Your task to perform on an android device: install app "Spotify" Image 0: 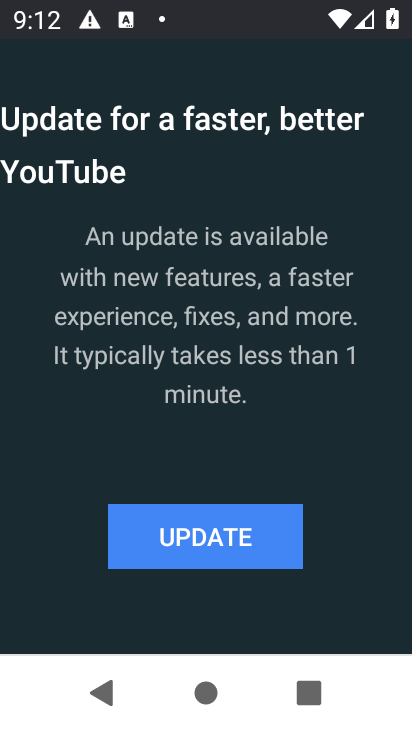
Step 0: press home button
Your task to perform on an android device: install app "Spotify" Image 1: 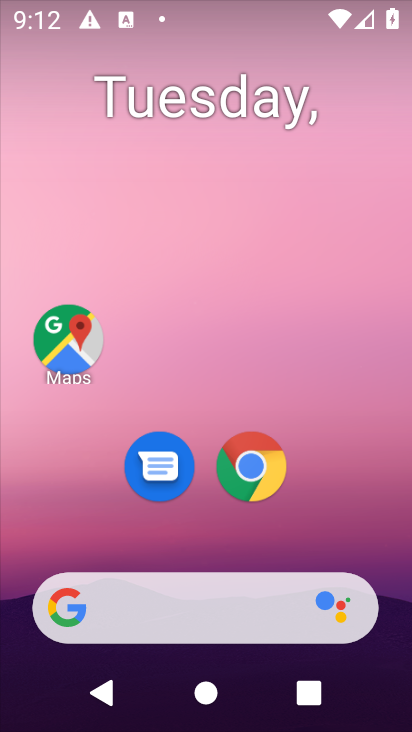
Step 1: drag from (202, 562) to (257, 31)
Your task to perform on an android device: install app "Spotify" Image 2: 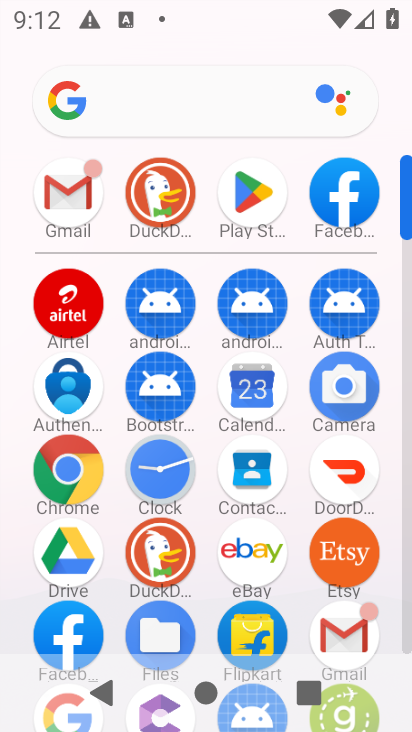
Step 2: click (263, 193)
Your task to perform on an android device: install app "Spotify" Image 3: 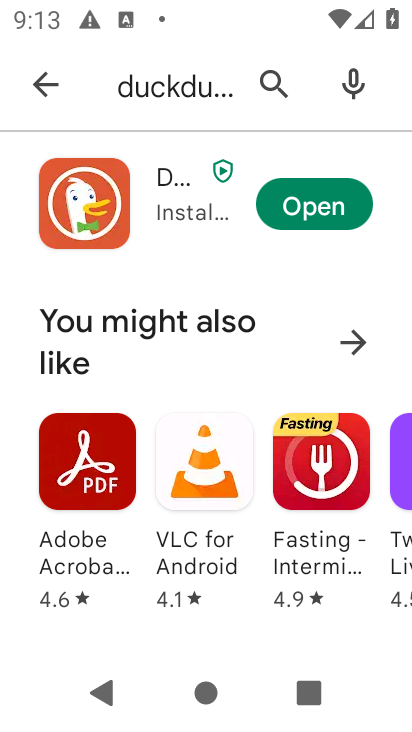
Step 3: click (270, 69)
Your task to perform on an android device: install app "Spotify" Image 4: 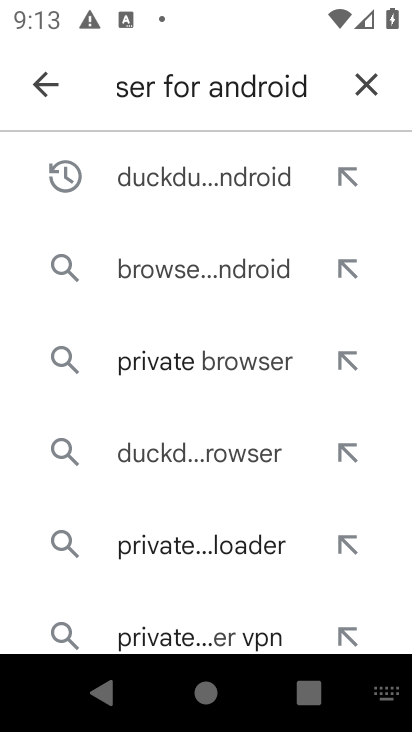
Step 4: click (349, 79)
Your task to perform on an android device: install app "Spotify" Image 5: 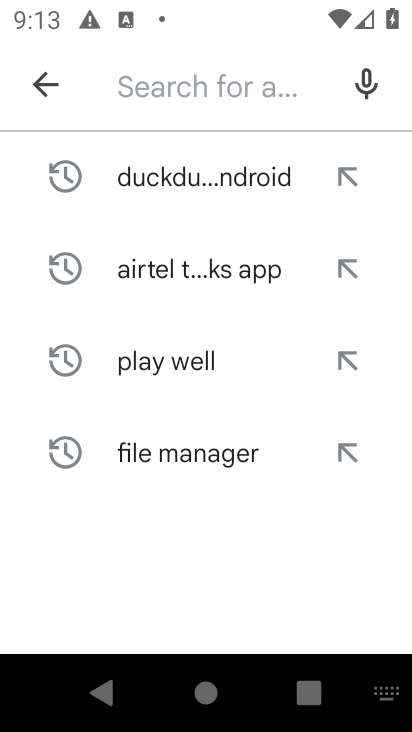
Step 5: type "spotify"
Your task to perform on an android device: install app "Spotify" Image 6: 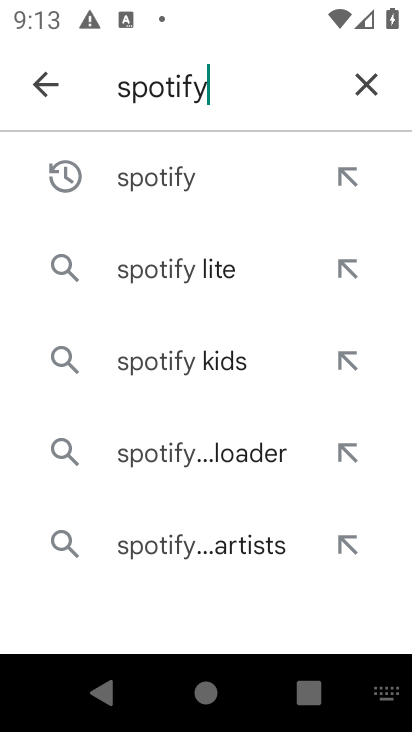
Step 6: click (177, 184)
Your task to perform on an android device: install app "Spotify" Image 7: 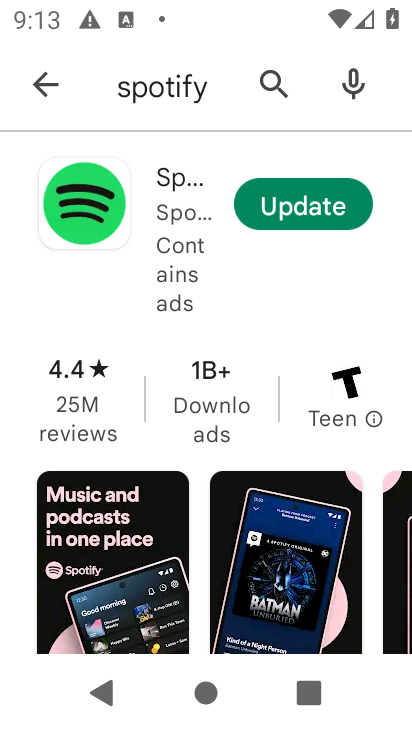
Step 7: task complete